Your task to perform on an android device: turn off javascript in the chrome app Image 0: 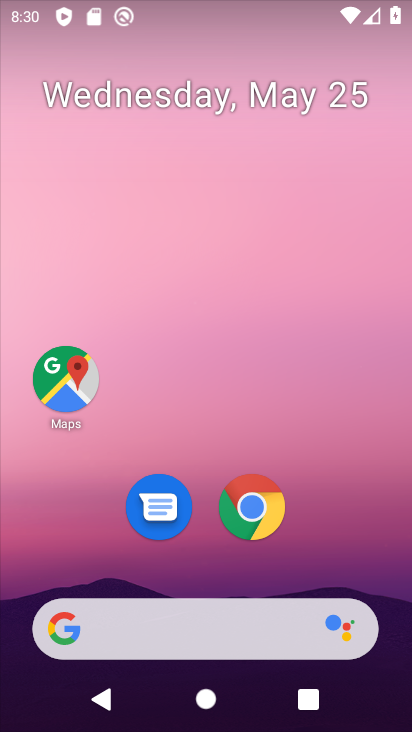
Step 0: click (252, 505)
Your task to perform on an android device: turn off javascript in the chrome app Image 1: 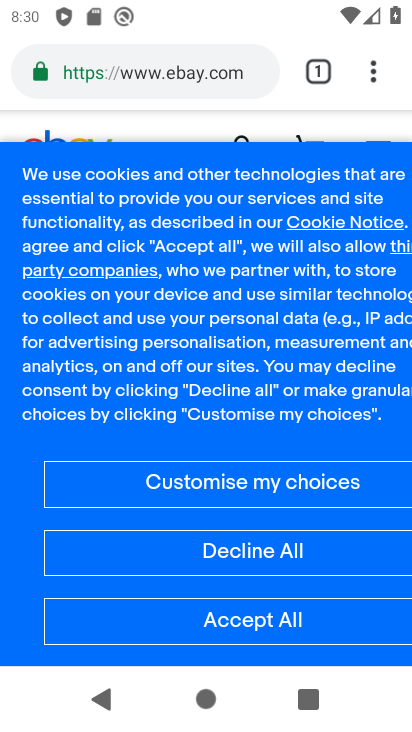
Step 1: click (371, 70)
Your task to perform on an android device: turn off javascript in the chrome app Image 2: 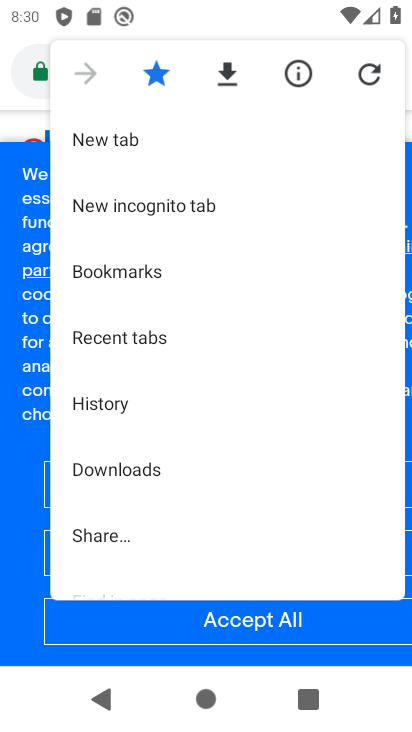
Step 2: drag from (207, 431) to (158, 53)
Your task to perform on an android device: turn off javascript in the chrome app Image 3: 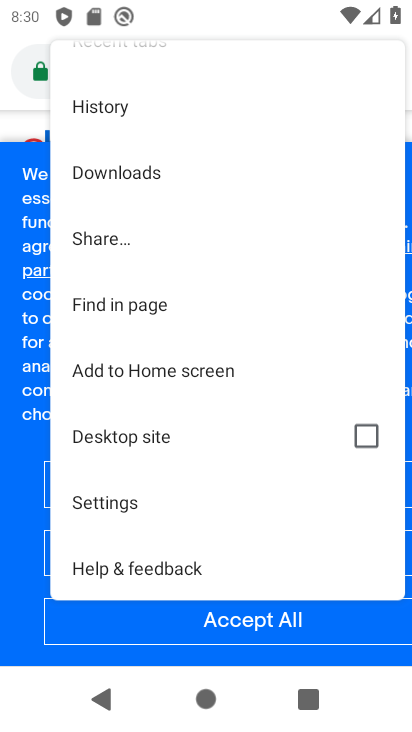
Step 3: click (99, 499)
Your task to perform on an android device: turn off javascript in the chrome app Image 4: 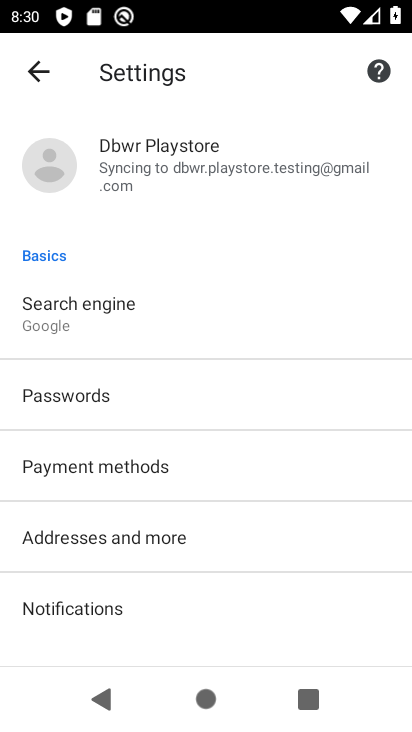
Step 4: drag from (201, 527) to (164, 197)
Your task to perform on an android device: turn off javascript in the chrome app Image 5: 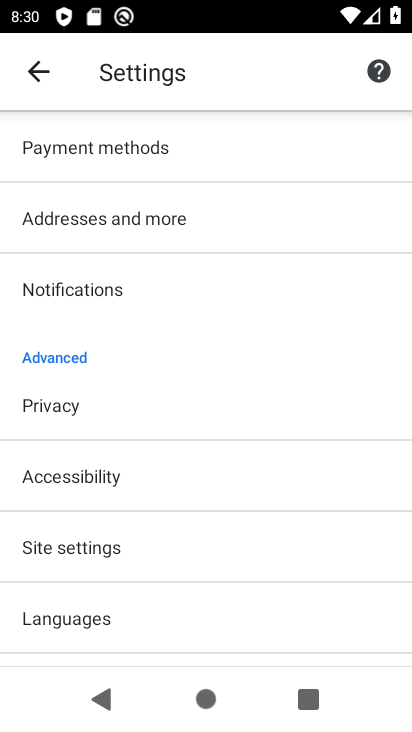
Step 5: click (56, 566)
Your task to perform on an android device: turn off javascript in the chrome app Image 6: 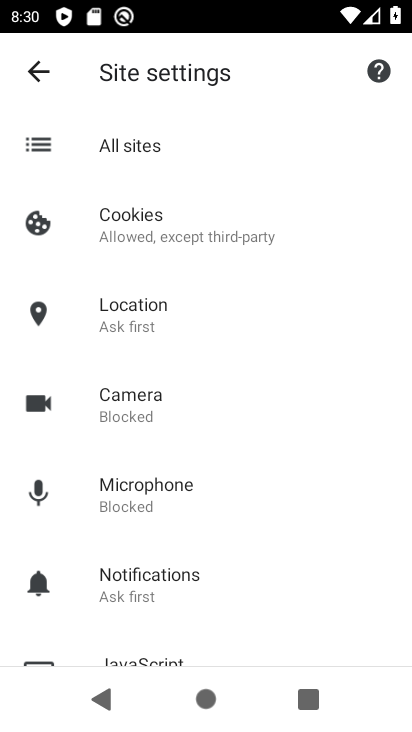
Step 6: drag from (56, 566) to (4, 148)
Your task to perform on an android device: turn off javascript in the chrome app Image 7: 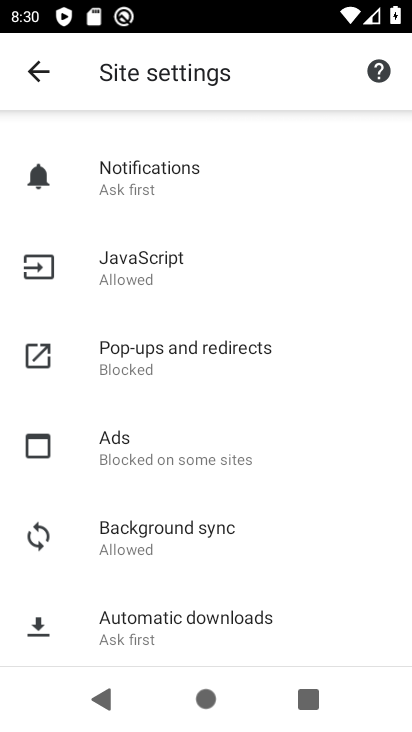
Step 7: click (164, 254)
Your task to perform on an android device: turn off javascript in the chrome app Image 8: 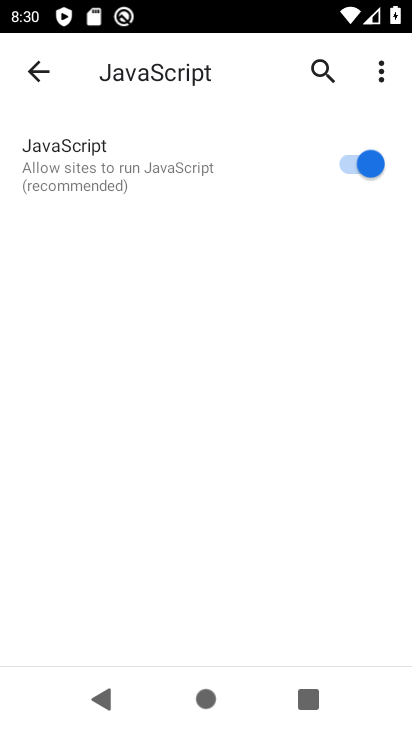
Step 8: click (371, 163)
Your task to perform on an android device: turn off javascript in the chrome app Image 9: 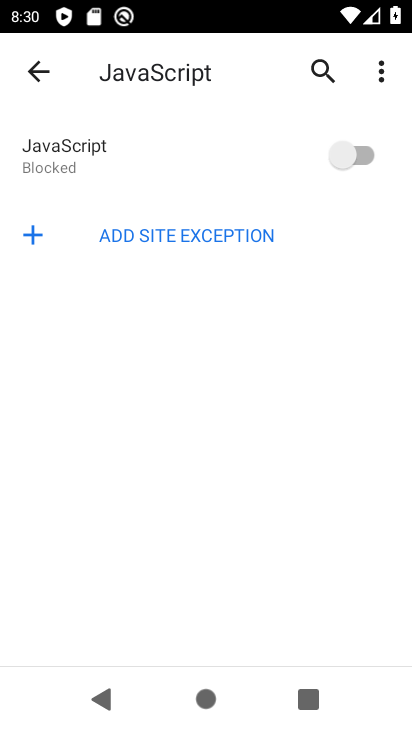
Step 9: task complete